Your task to perform on an android device: Open Maps and search for coffee Image 0: 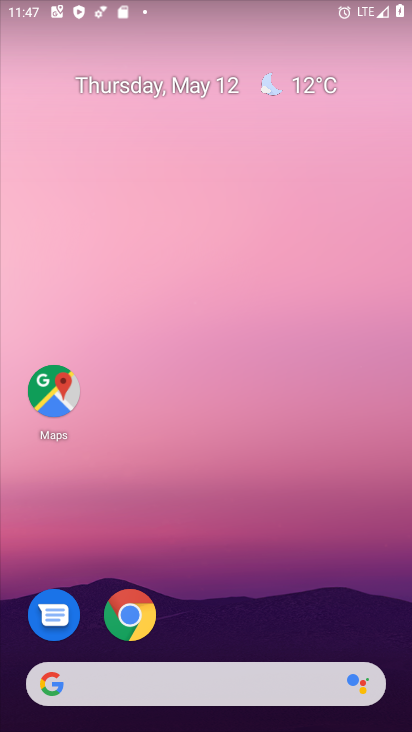
Step 0: click (45, 381)
Your task to perform on an android device: Open Maps and search for coffee Image 1: 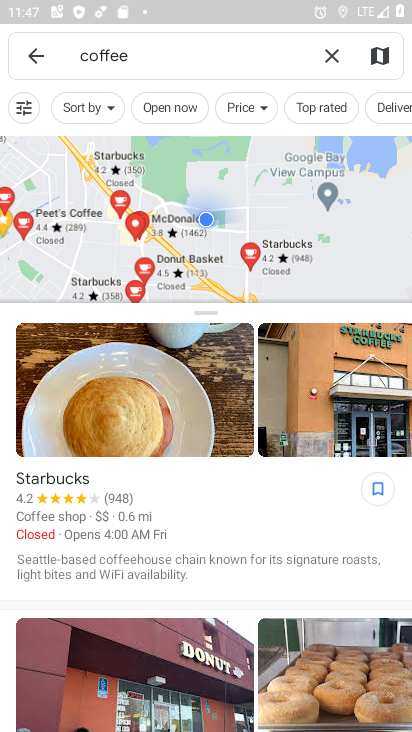
Step 1: task complete